Your task to perform on an android device: Open the stopwatch Image 0: 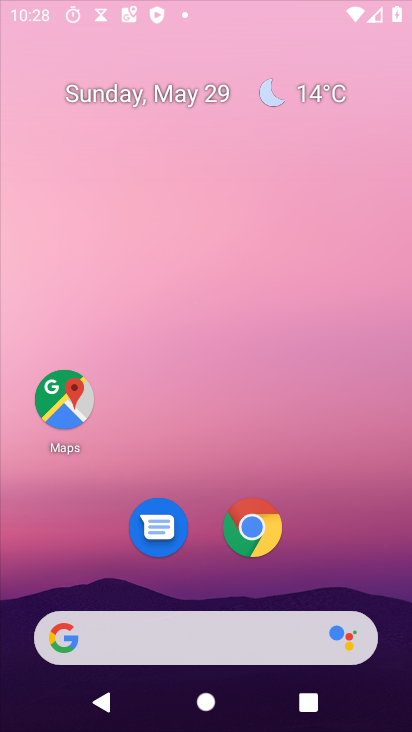
Step 0: press home button
Your task to perform on an android device: Open the stopwatch Image 1: 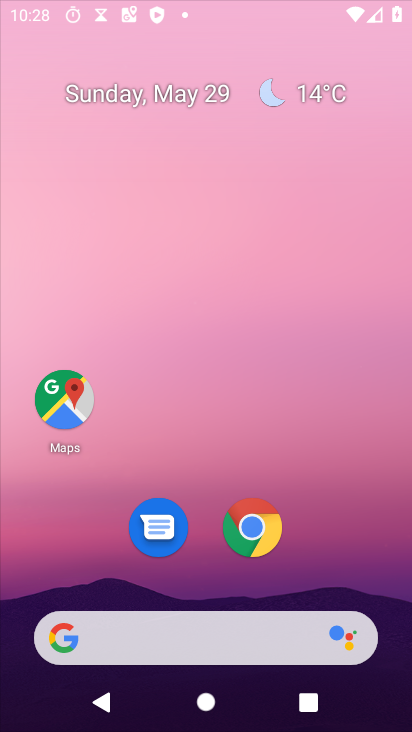
Step 1: click (307, 57)
Your task to perform on an android device: Open the stopwatch Image 2: 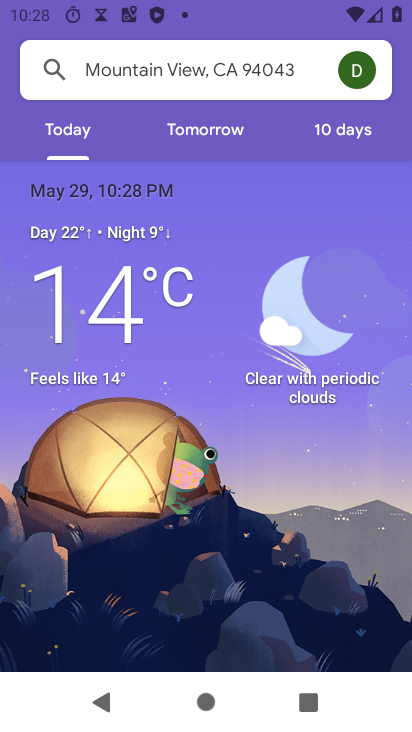
Step 2: press home button
Your task to perform on an android device: Open the stopwatch Image 3: 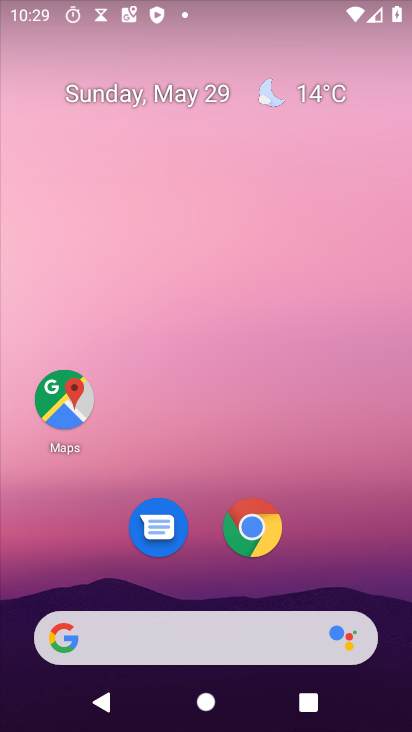
Step 3: drag from (170, 651) to (353, 45)
Your task to perform on an android device: Open the stopwatch Image 4: 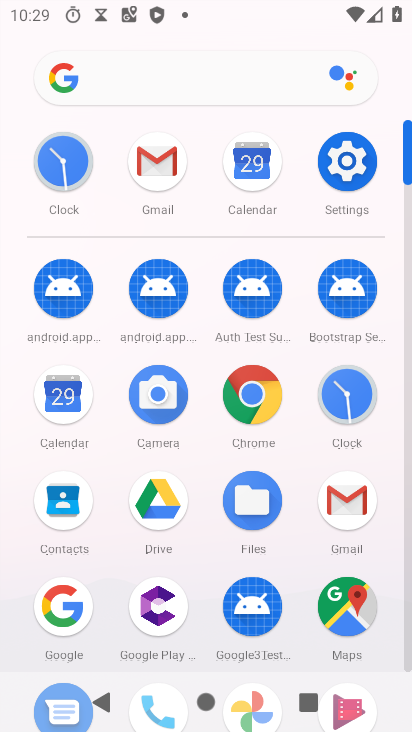
Step 4: click (64, 160)
Your task to perform on an android device: Open the stopwatch Image 5: 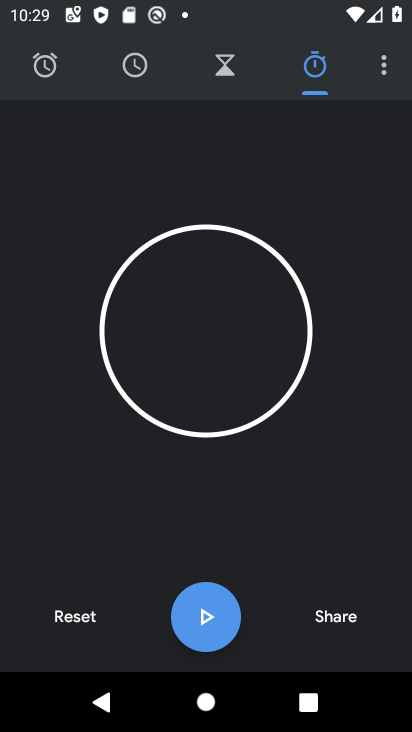
Step 5: task complete